Your task to perform on an android device: Open the calendar and show me this week's events? Image 0: 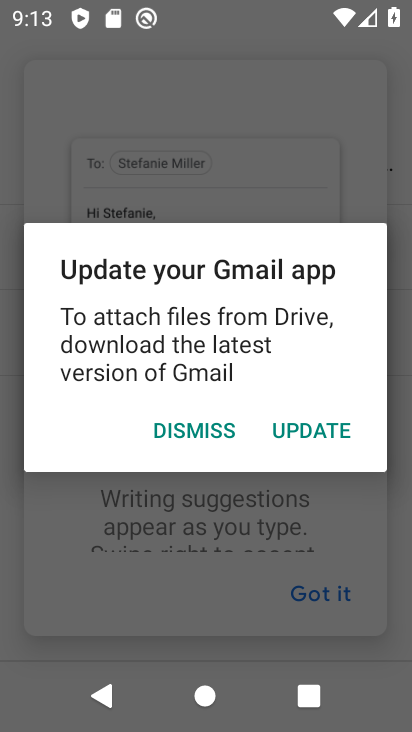
Step 0: press home button
Your task to perform on an android device: Open the calendar and show me this week's events? Image 1: 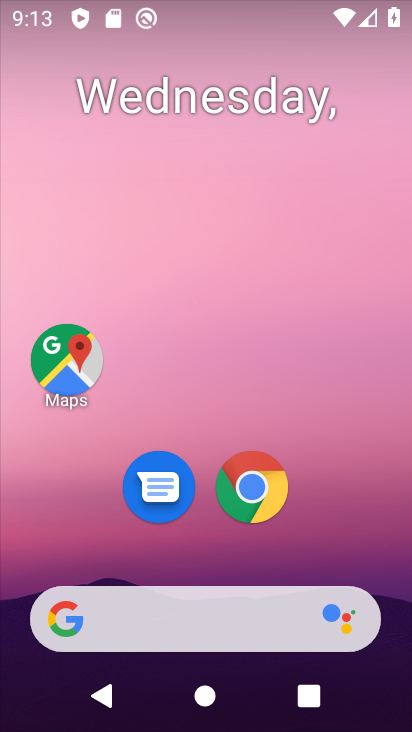
Step 1: click (70, 608)
Your task to perform on an android device: Open the calendar and show me this week's events? Image 2: 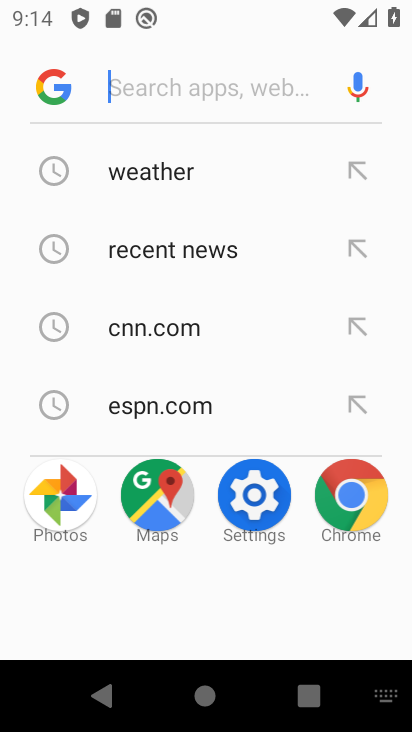
Step 2: press home button
Your task to perform on an android device: Open the calendar and show me this week's events? Image 3: 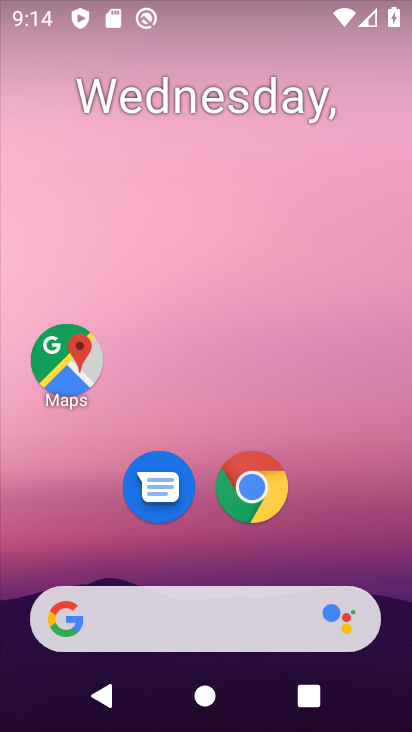
Step 3: drag from (38, 547) to (280, 237)
Your task to perform on an android device: Open the calendar and show me this week's events? Image 4: 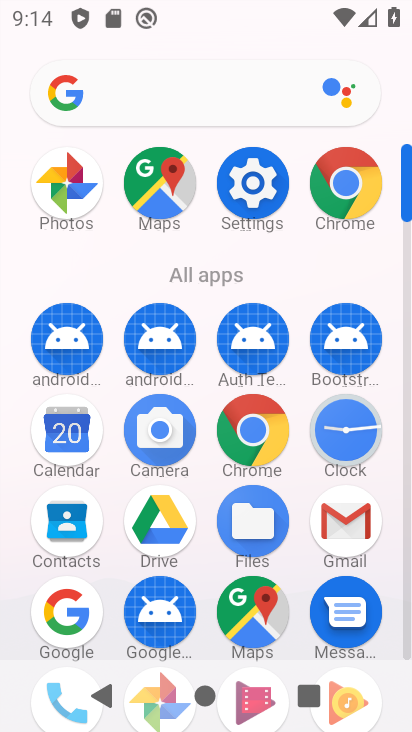
Step 4: click (80, 450)
Your task to perform on an android device: Open the calendar and show me this week's events? Image 5: 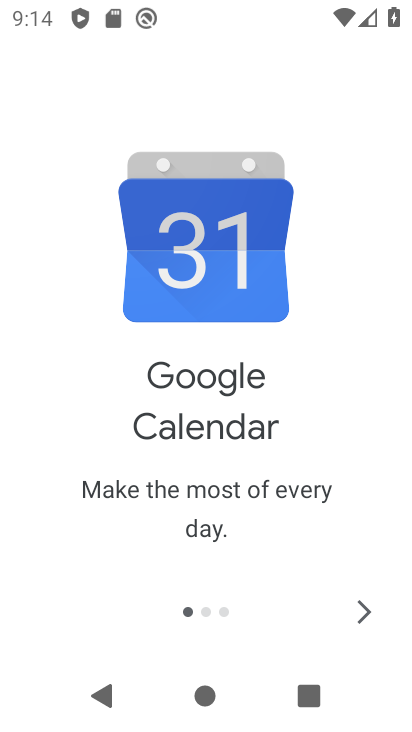
Step 5: click (358, 606)
Your task to perform on an android device: Open the calendar and show me this week's events? Image 6: 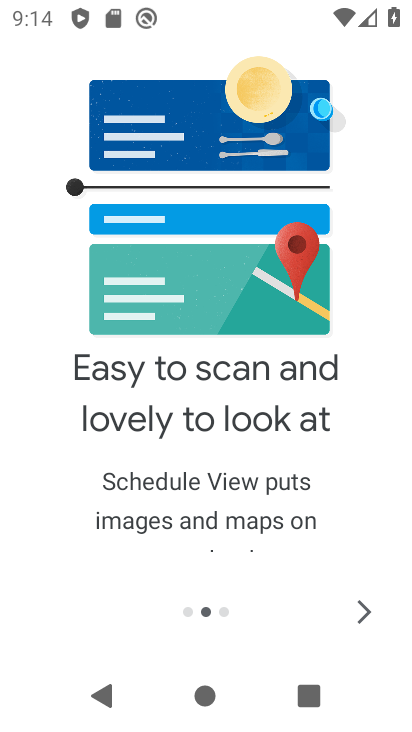
Step 6: click (358, 604)
Your task to perform on an android device: Open the calendar and show me this week's events? Image 7: 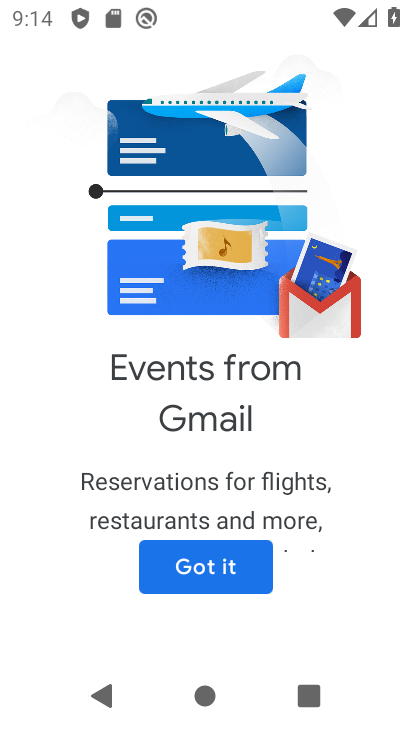
Step 7: click (136, 550)
Your task to perform on an android device: Open the calendar and show me this week's events? Image 8: 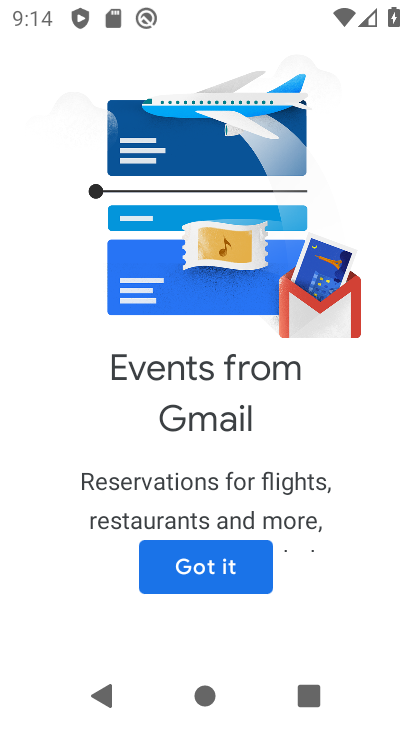
Step 8: click (201, 571)
Your task to perform on an android device: Open the calendar and show me this week's events? Image 9: 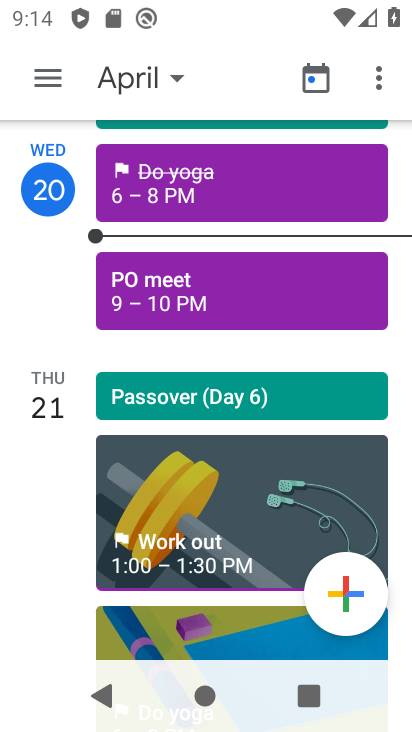
Step 9: click (142, 75)
Your task to perform on an android device: Open the calendar and show me this week's events? Image 10: 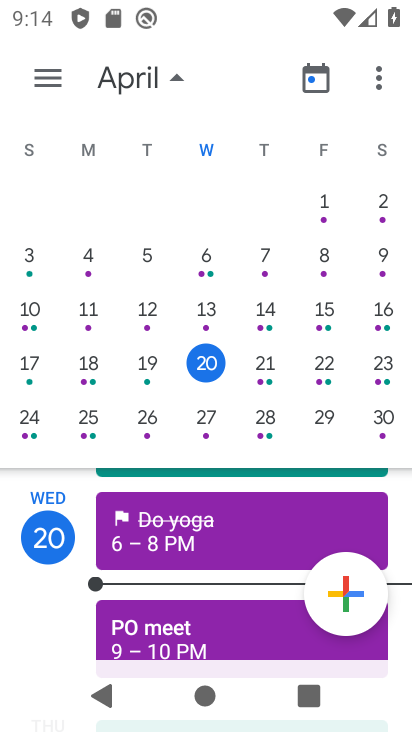
Step 10: click (79, 416)
Your task to perform on an android device: Open the calendar and show me this week's events? Image 11: 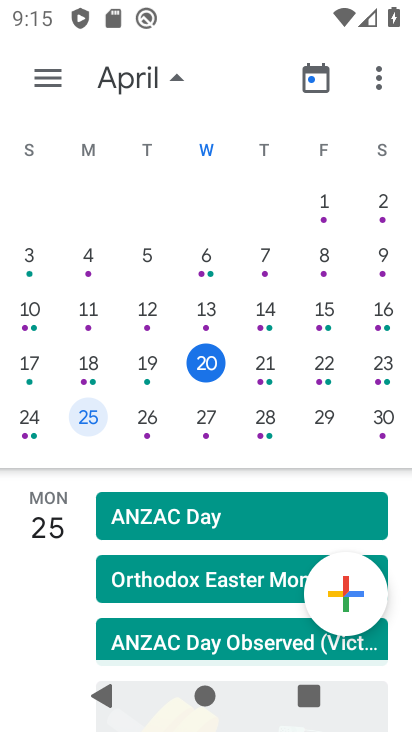
Step 11: task complete